Your task to perform on an android device: Show me recent news Image 0: 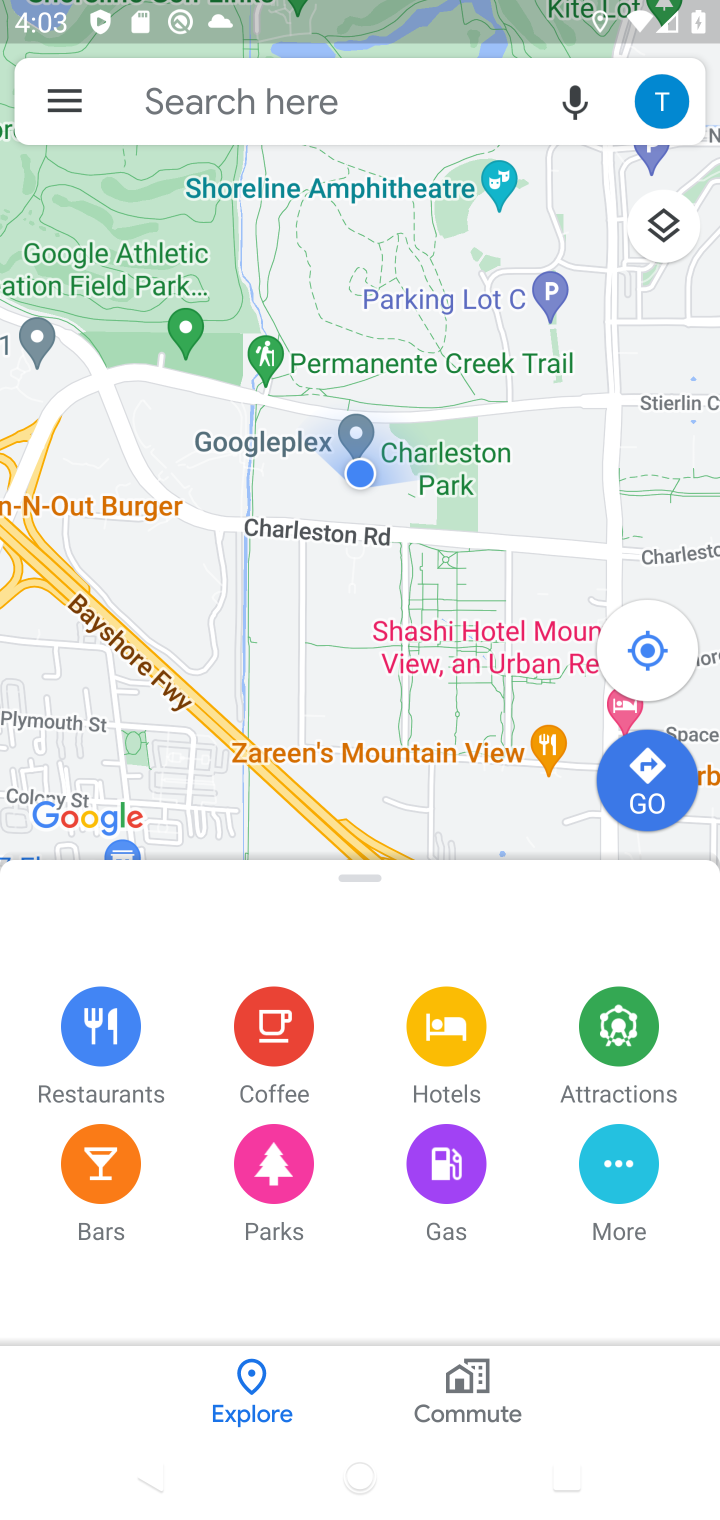
Step 0: drag from (368, 1323) to (323, 551)
Your task to perform on an android device: Show me recent news Image 1: 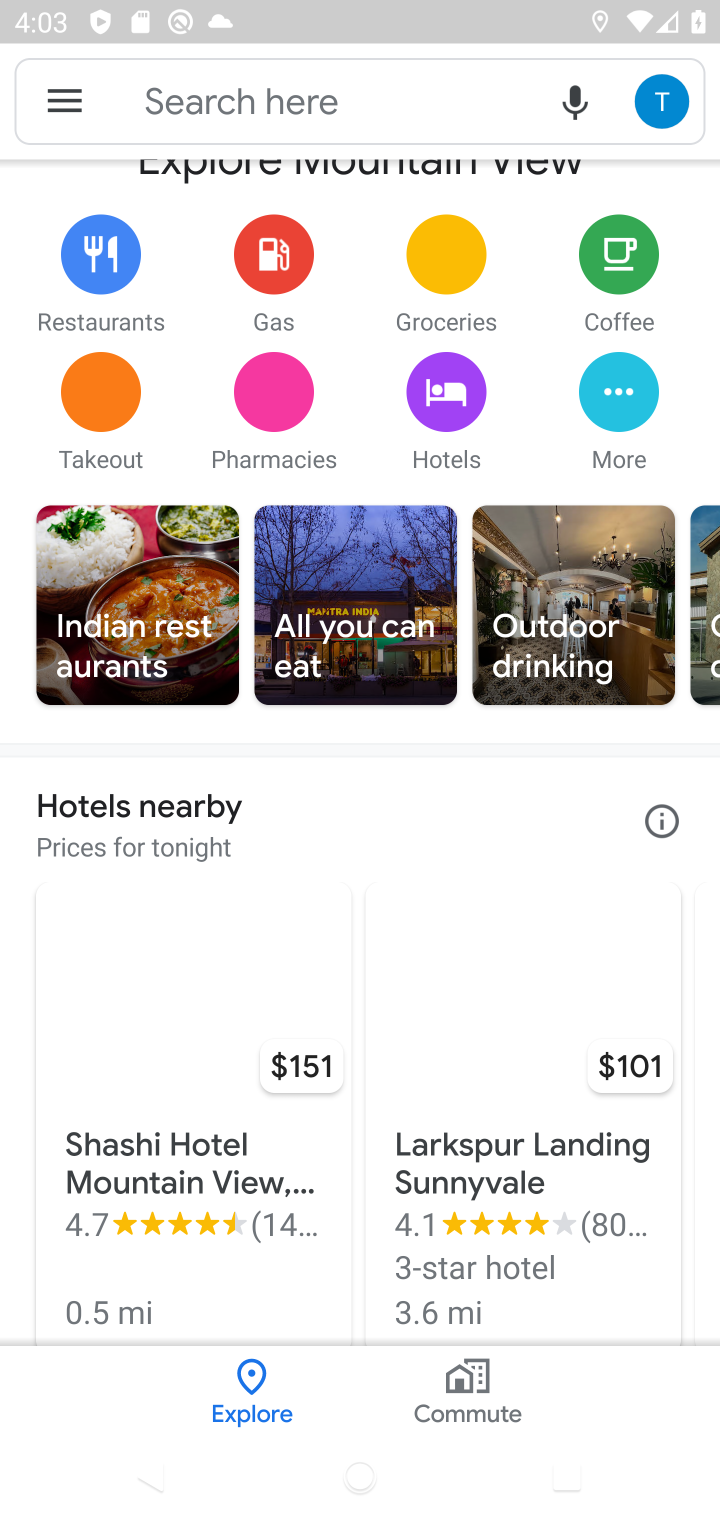
Step 1: press home button
Your task to perform on an android device: Show me recent news Image 2: 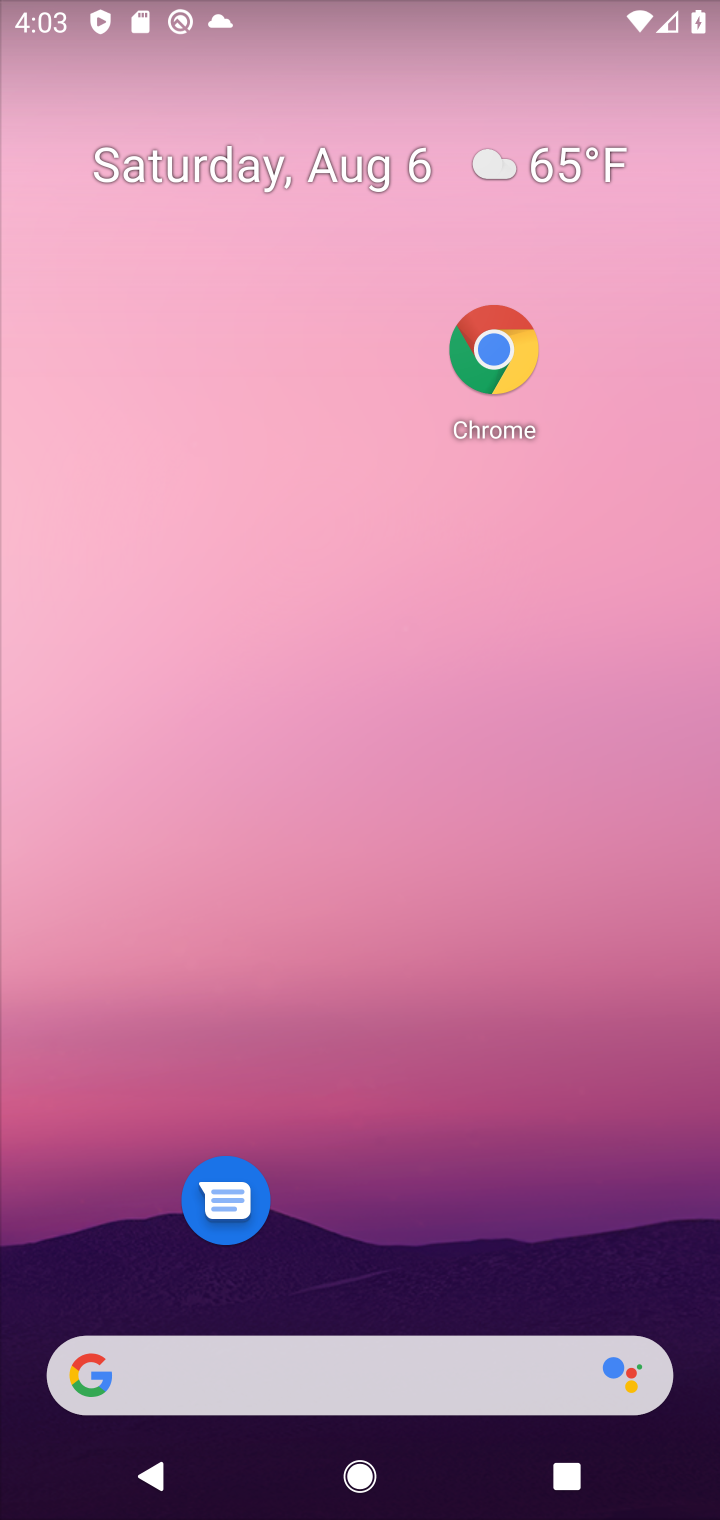
Step 2: drag from (286, 1359) to (273, 575)
Your task to perform on an android device: Show me recent news Image 3: 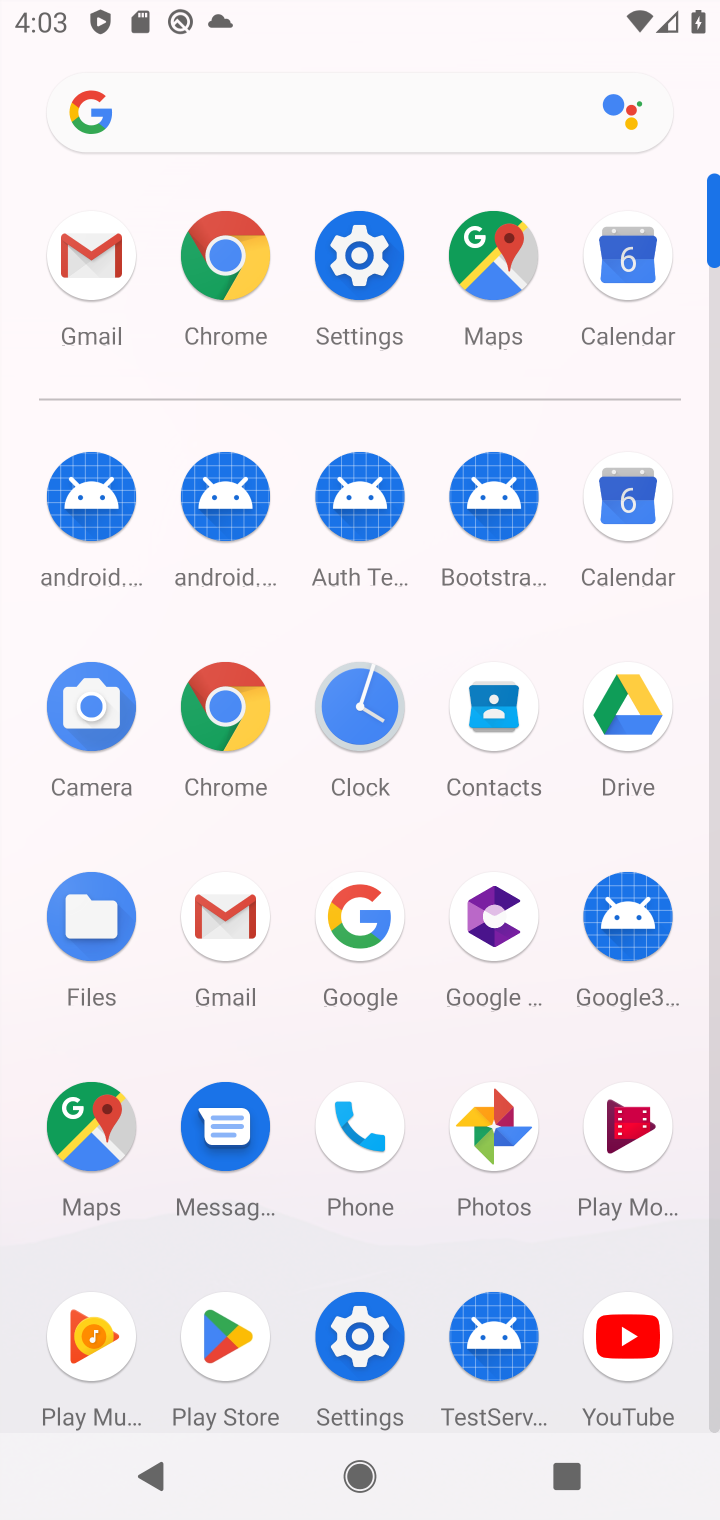
Step 3: click (337, 924)
Your task to perform on an android device: Show me recent news Image 4: 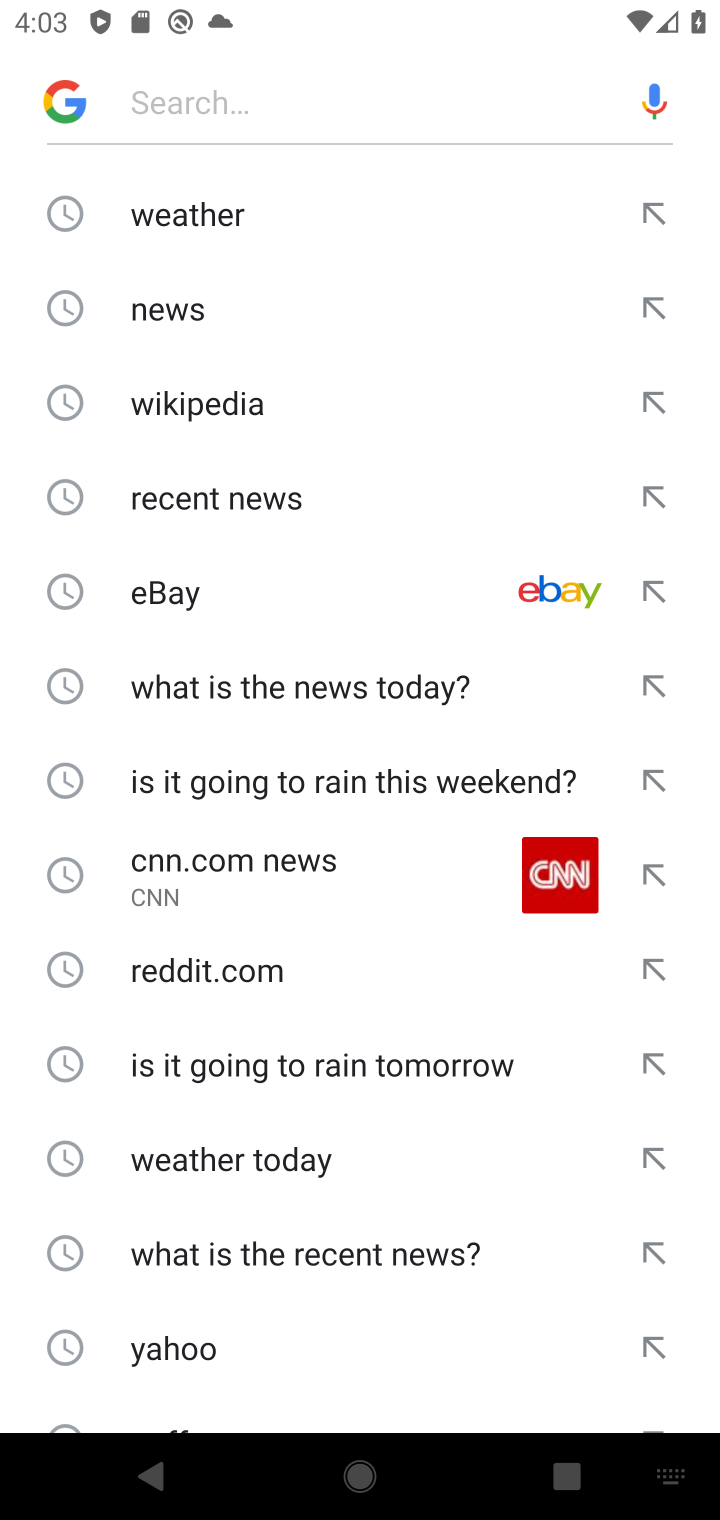
Step 4: click (245, 525)
Your task to perform on an android device: Show me recent news Image 5: 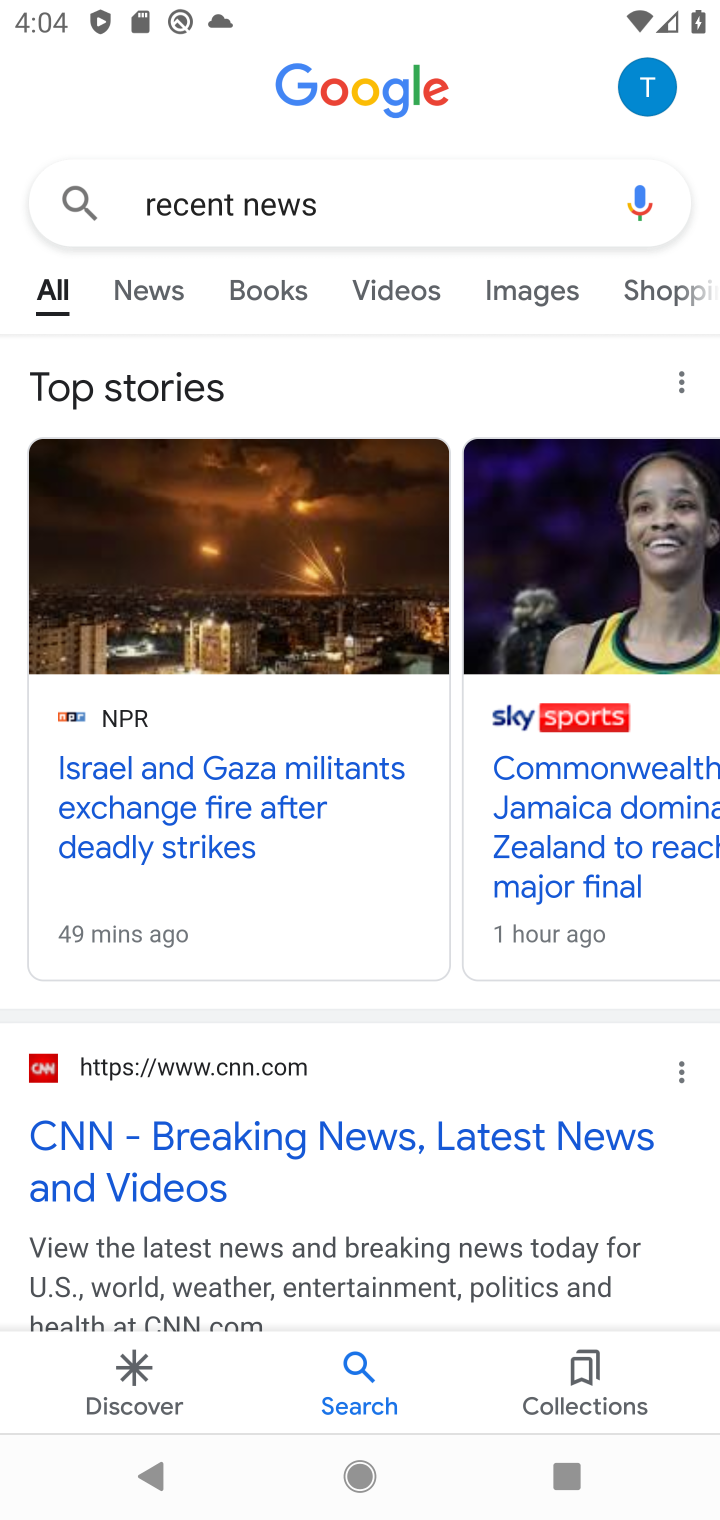
Step 5: task complete